Your task to perform on an android device: refresh tabs in the chrome app Image 0: 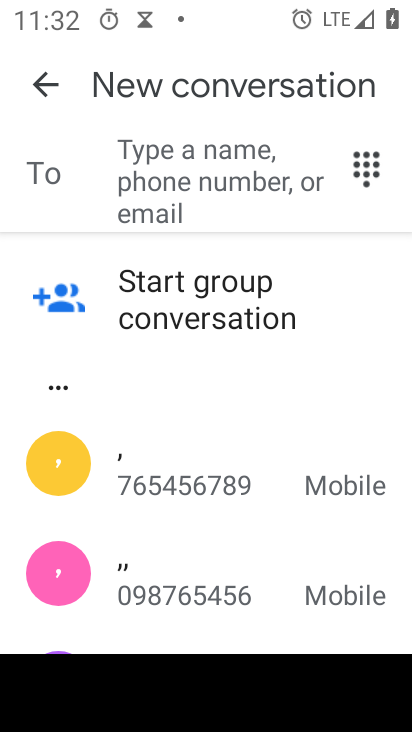
Step 0: press home button
Your task to perform on an android device: refresh tabs in the chrome app Image 1: 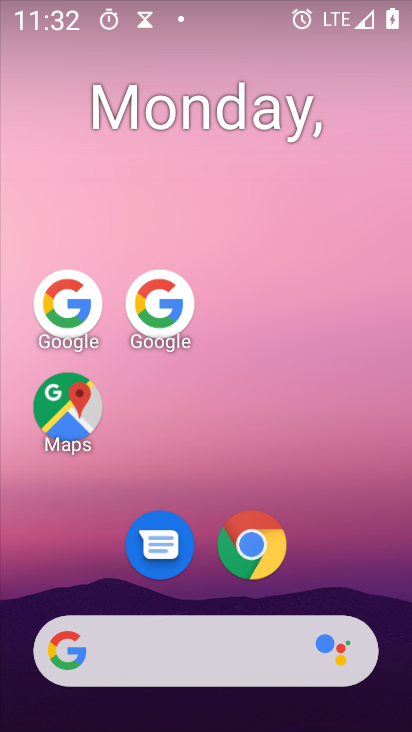
Step 1: click (250, 568)
Your task to perform on an android device: refresh tabs in the chrome app Image 2: 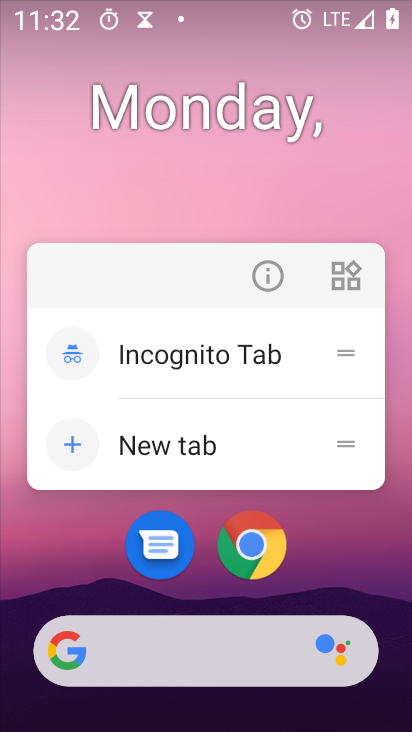
Step 2: click (254, 550)
Your task to perform on an android device: refresh tabs in the chrome app Image 3: 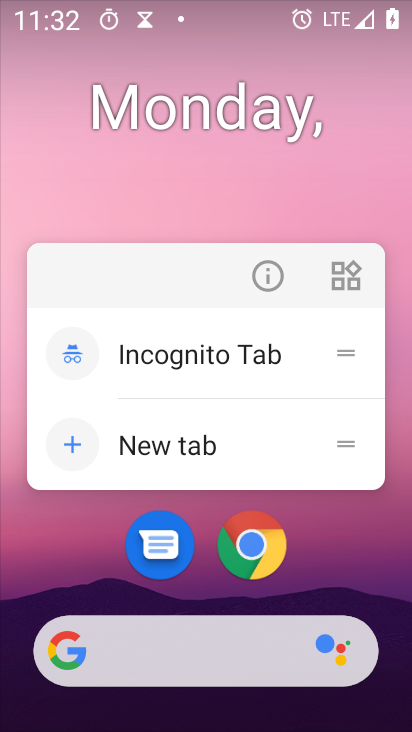
Step 3: click (254, 550)
Your task to perform on an android device: refresh tabs in the chrome app Image 4: 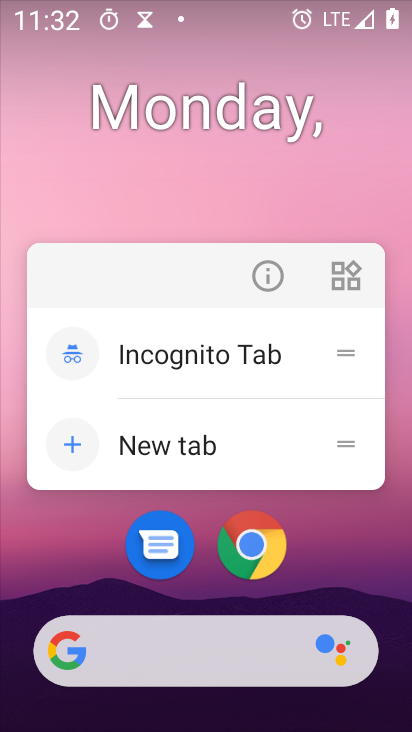
Step 4: click (254, 549)
Your task to perform on an android device: refresh tabs in the chrome app Image 5: 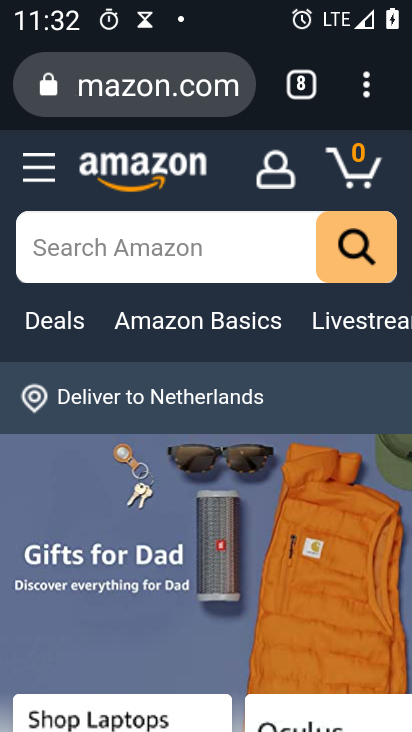
Step 5: click (367, 106)
Your task to perform on an android device: refresh tabs in the chrome app Image 6: 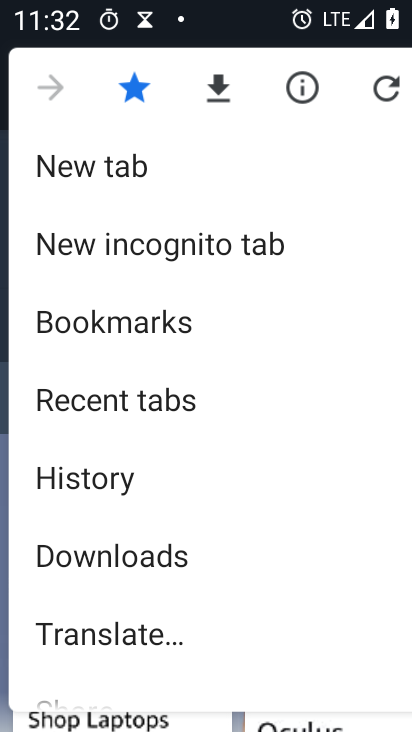
Step 6: click (378, 91)
Your task to perform on an android device: refresh tabs in the chrome app Image 7: 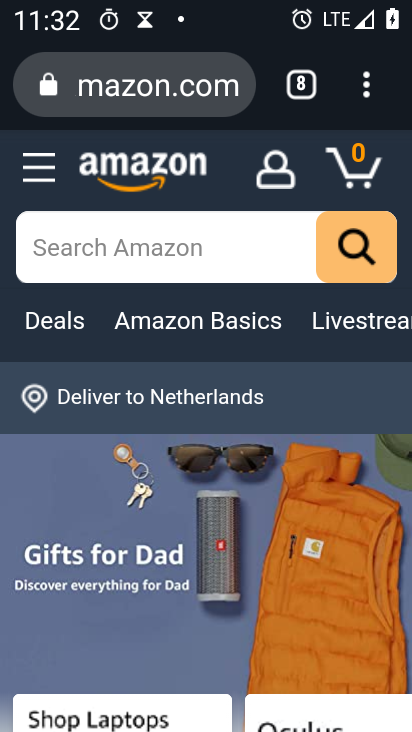
Step 7: task complete